Your task to perform on an android device: empty trash in the gmail app Image 0: 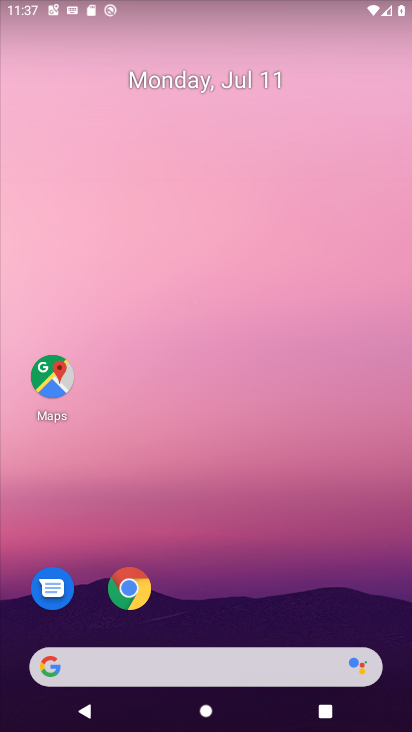
Step 0: drag from (241, 153) to (230, 113)
Your task to perform on an android device: empty trash in the gmail app Image 1: 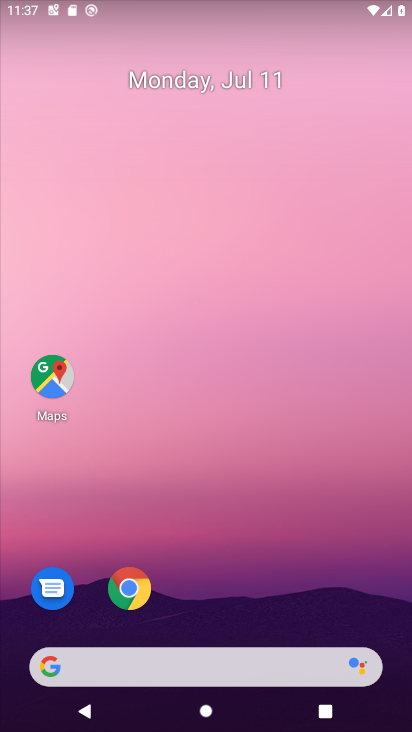
Step 1: drag from (259, 616) to (160, 196)
Your task to perform on an android device: empty trash in the gmail app Image 2: 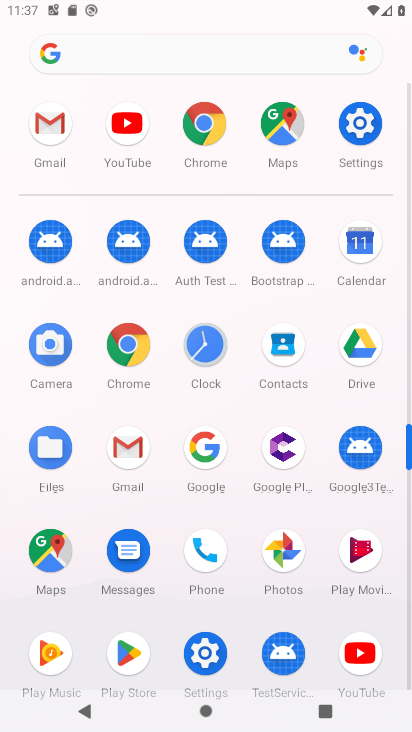
Step 2: click (128, 443)
Your task to perform on an android device: empty trash in the gmail app Image 3: 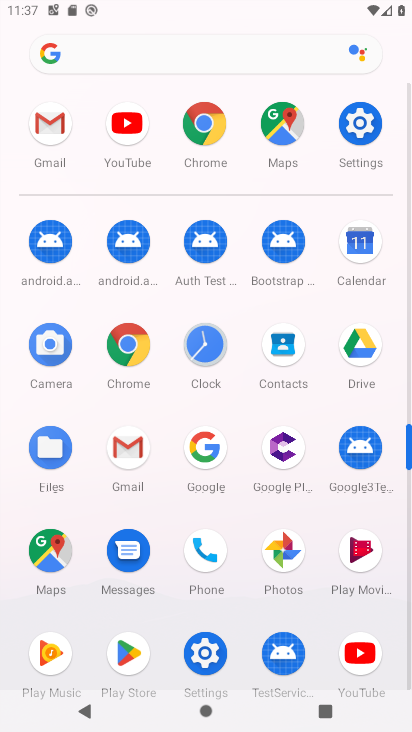
Step 3: click (128, 443)
Your task to perform on an android device: empty trash in the gmail app Image 4: 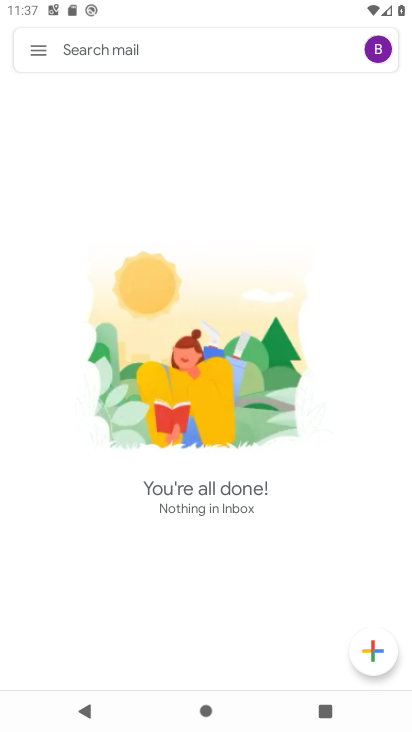
Step 4: click (128, 443)
Your task to perform on an android device: empty trash in the gmail app Image 5: 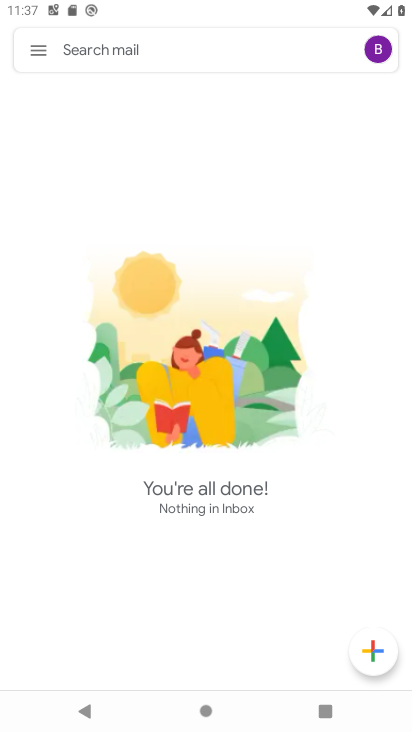
Step 5: click (38, 35)
Your task to perform on an android device: empty trash in the gmail app Image 6: 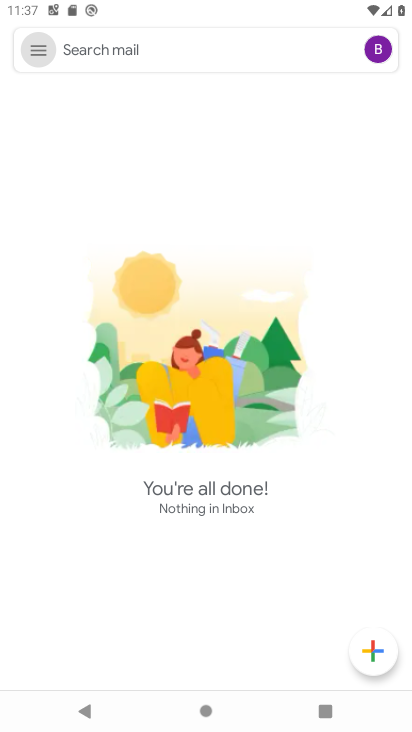
Step 6: click (52, 47)
Your task to perform on an android device: empty trash in the gmail app Image 7: 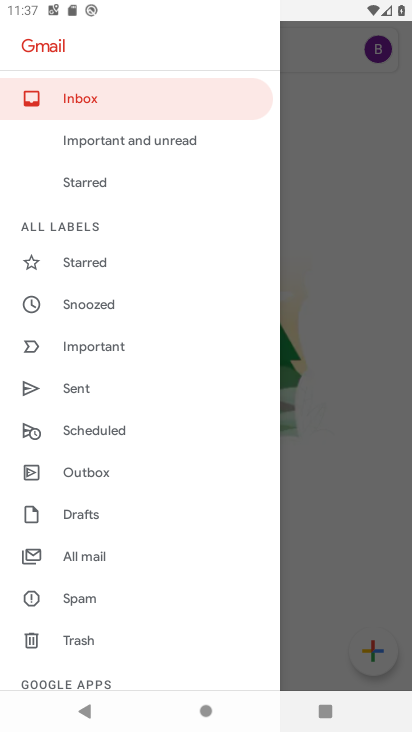
Step 7: click (77, 631)
Your task to perform on an android device: empty trash in the gmail app Image 8: 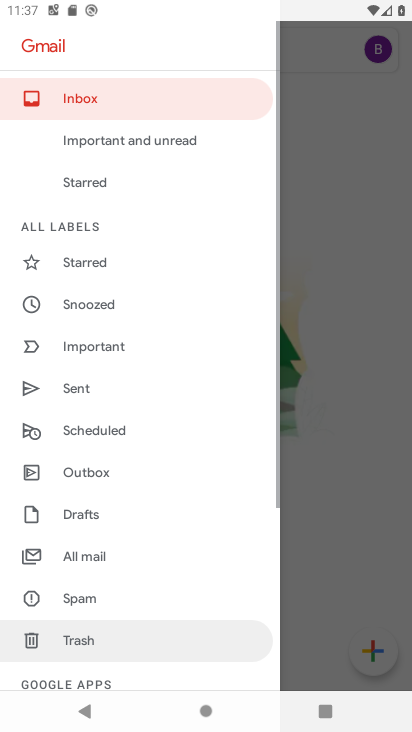
Step 8: click (77, 631)
Your task to perform on an android device: empty trash in the gmail app Image 9: 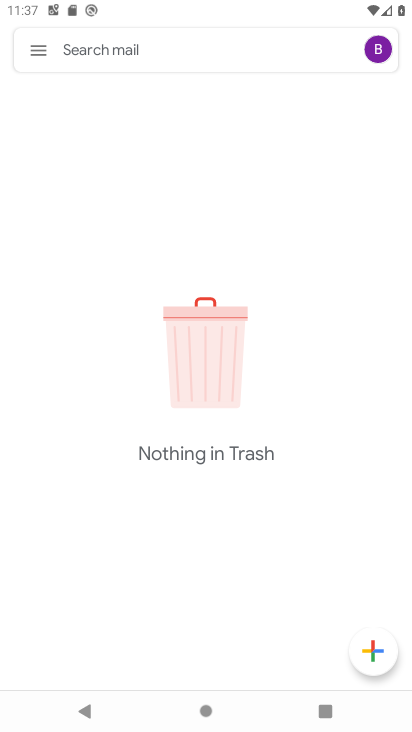
Step 9: task complete